Your task to perform on an android device: open app "Speedtest by Ookla" (install if not already installed) Image 0: 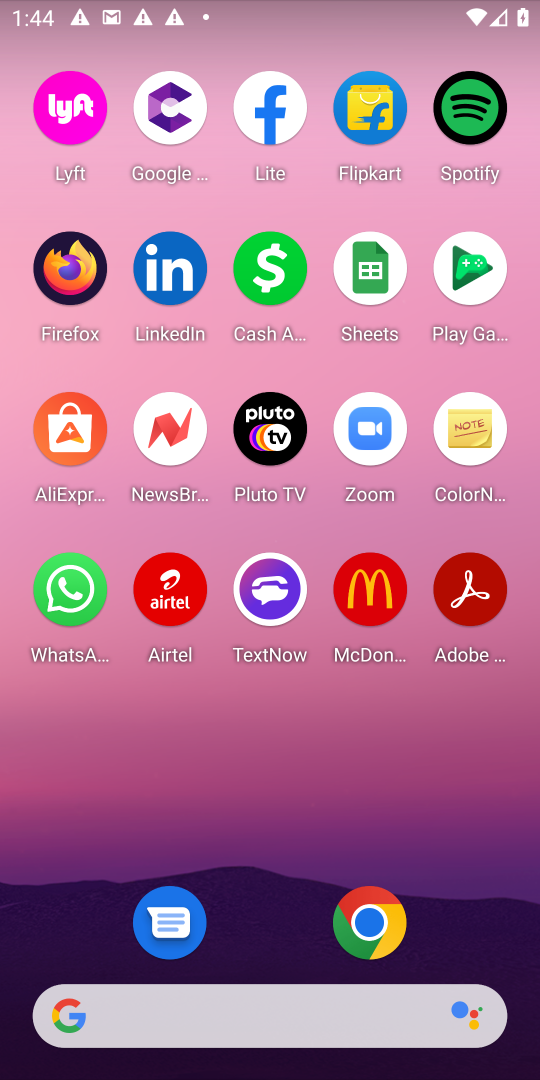
Step 0: drag from (231, 454) to (224, 67)
Your task to perform on an android device: open app "Speedtest by Ookla" (install if not already installed) Image 1: 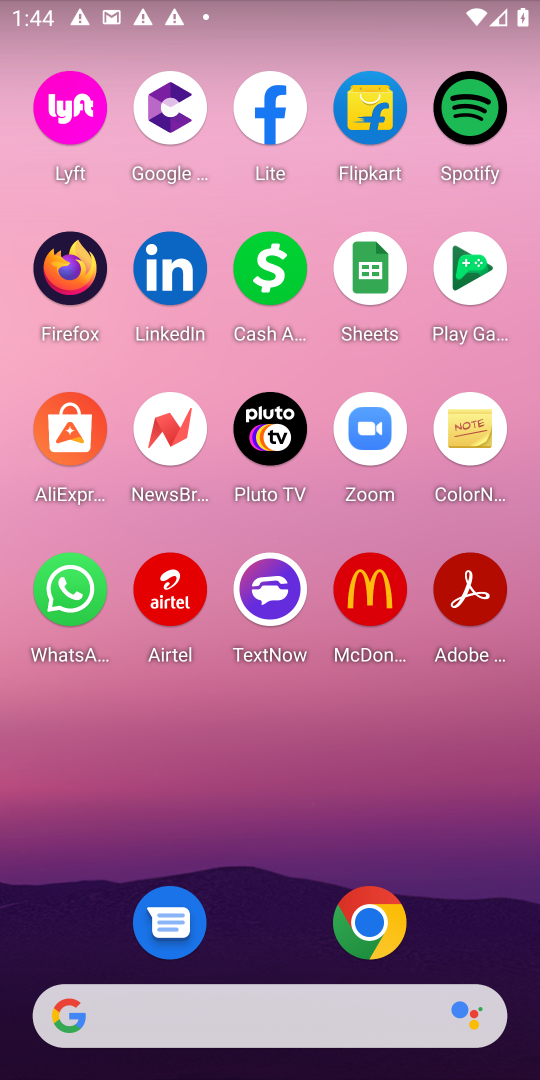
Step 1: drag from (270, 814) to (332, 19)
Your task to perform on an android device: open app "Speedtest by Ookla" (install if not already installed) Image 2: 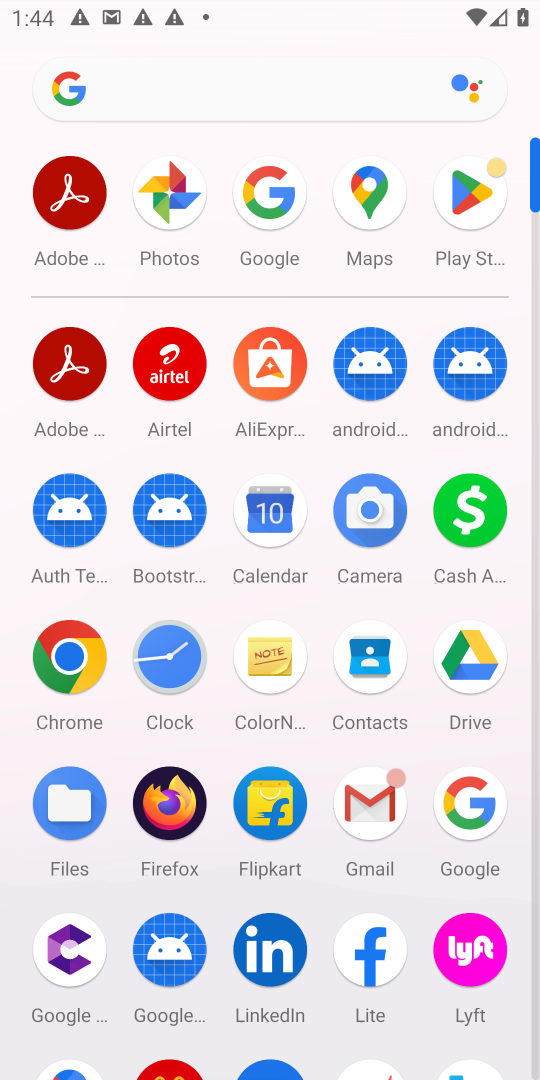
Step 2: click (470, 197)
Your task to perform on an android device: open app "Speedtest by Ookla" (install if not already installed) Image 3: 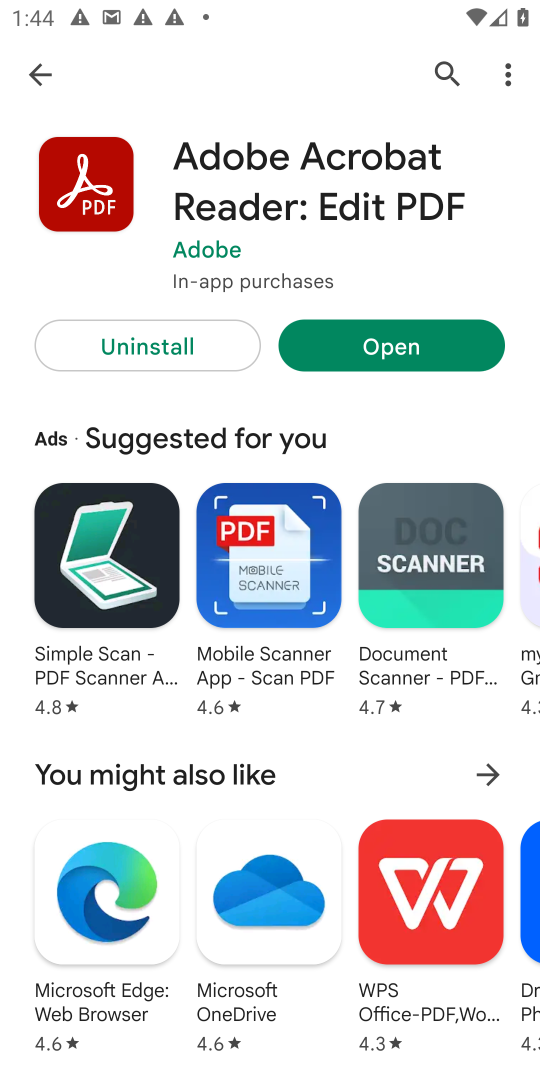
Step 3: click (31, 74)
Your task to perform on an android device: open app "Speedtest by Ookla" (install if not already installed) Image 4: 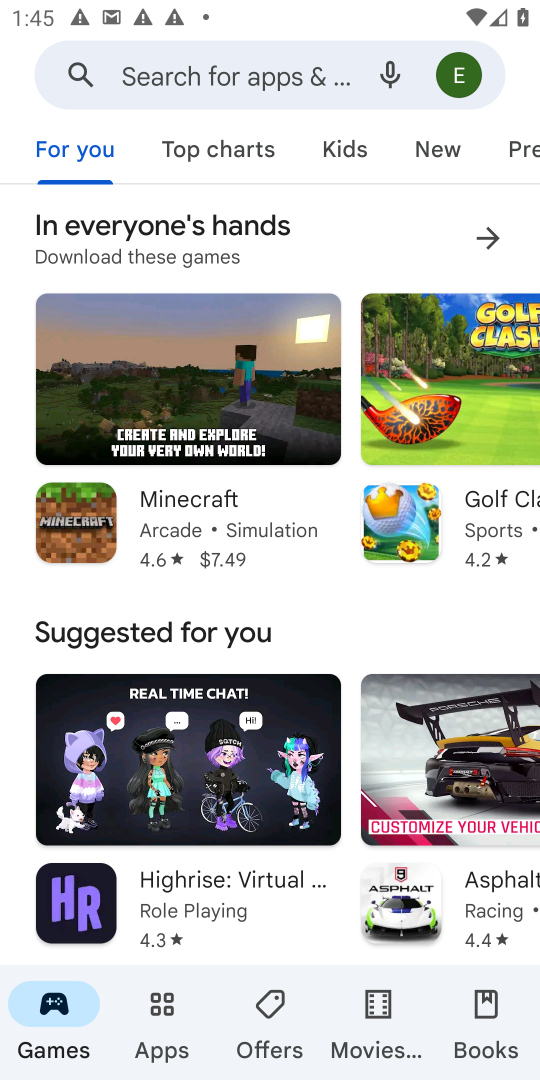
Step 4: click (172, 74)
Your task to perform on an android device: open app "Speedtest by Ookla" (install if not already installed) Image 5: 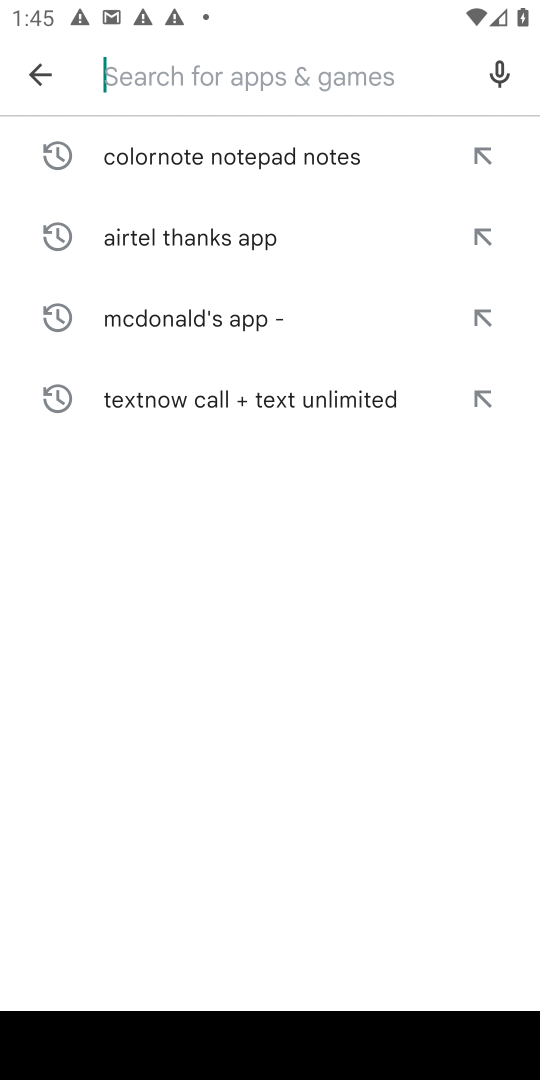
Step 5: type "Speedtest by Ookla"
Your task to perform on an android device: open app "Speedtest by Ookla" (install if not already installed) Image 6: 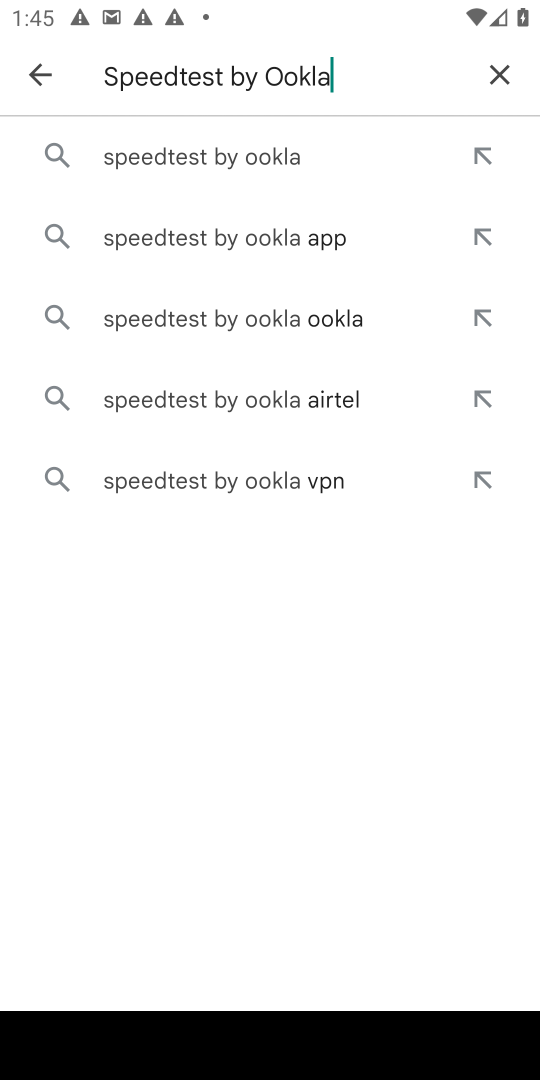
Step 6: click (176, 168)
Your task to perform on an android device: open app "Speedtest by Ookla" (install if not already installed) Image 7: 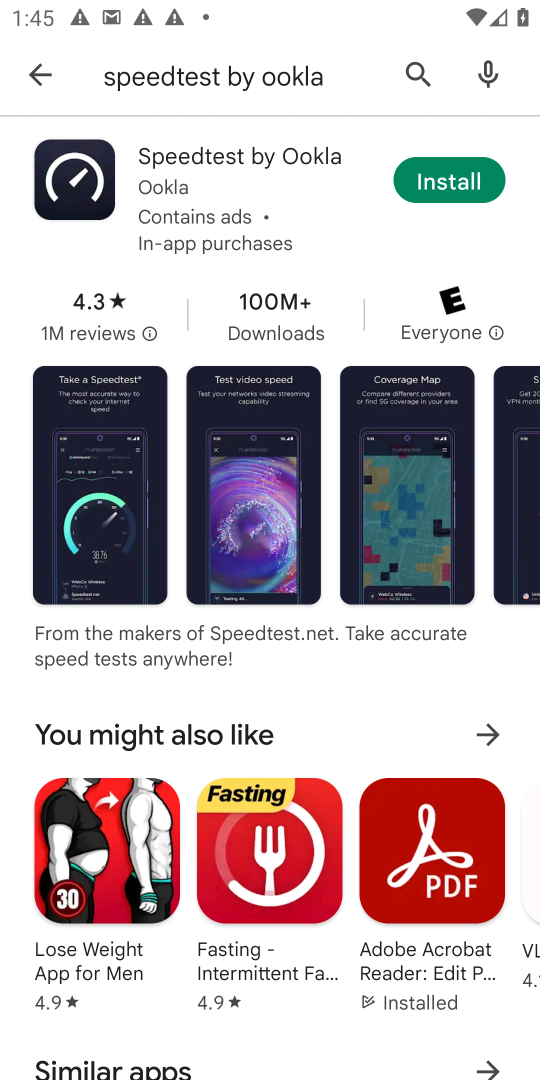
Step 7: click (454, 178)
Your task to perform on an android device: open app "Speedtest by Ookla" (install if not already installed) Image 8: 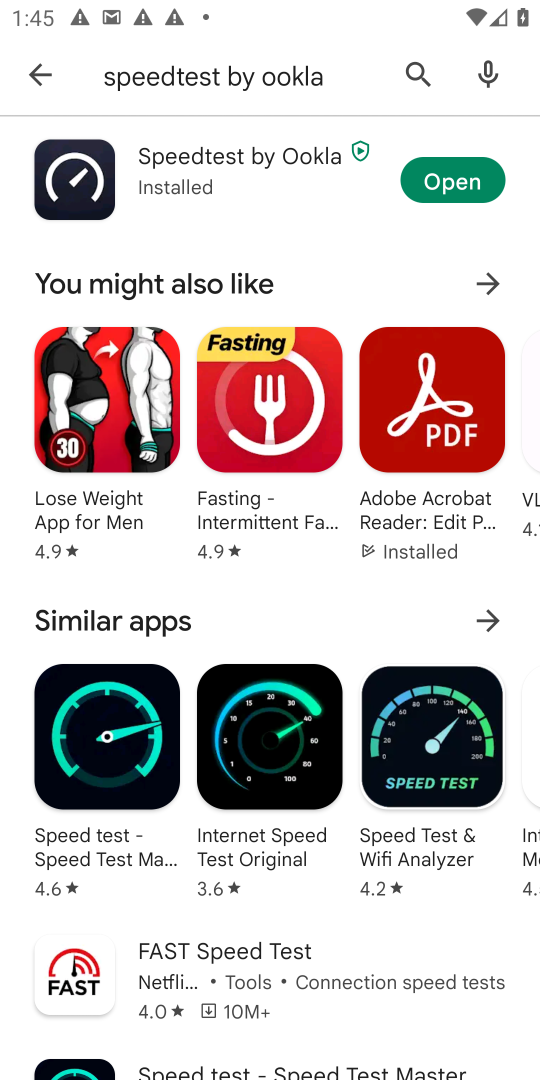
Step 8: click (454, 178)
Your task to perform on an android device: open app "Speedtest by Ookla" (install if not already installed) Image 9: 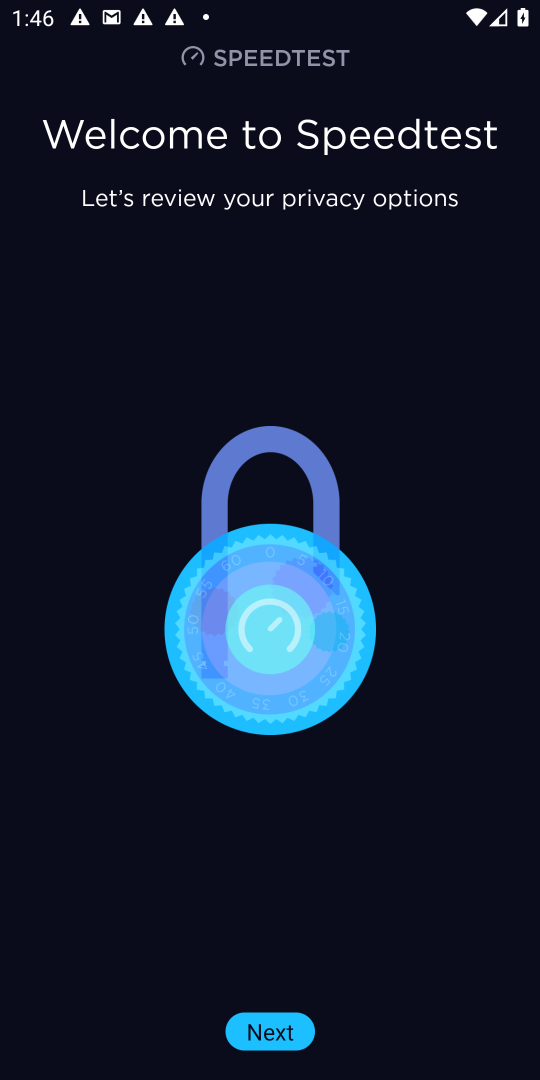
Step 9: task complete